Your task to perform on an android device: open a bookmark in the chrome app Image 0: 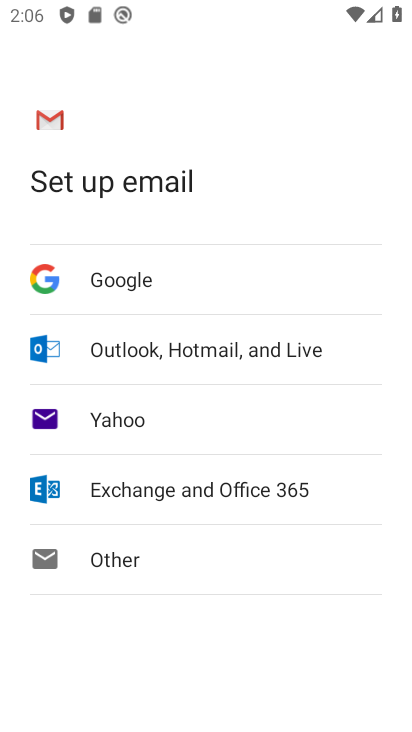
Step 0: press home button
Your task to perform on an android device: open a bookmark in the chrome app Image 1: 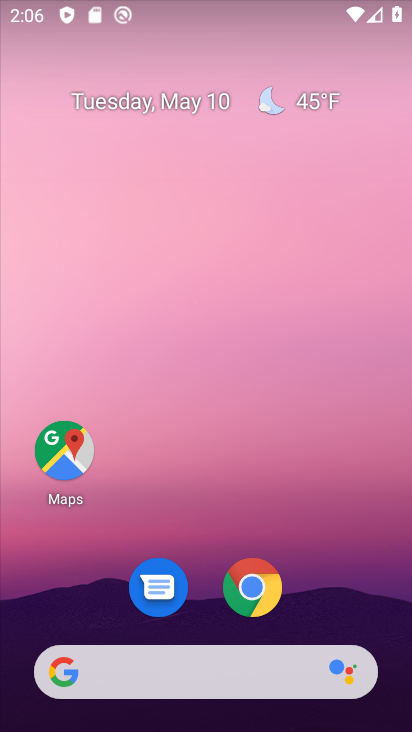
Step 1: drag from (337, 581) to (331, 125)
Your task to perform on an android device: open a bookmark in the chrome app Image 2: 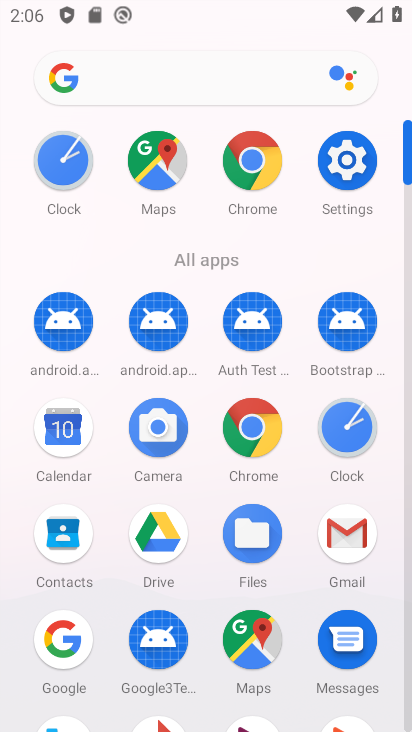
Step 2: click (257, 172)
Your task to perform on an android device: open a bookmark in the chrome app Image 3: 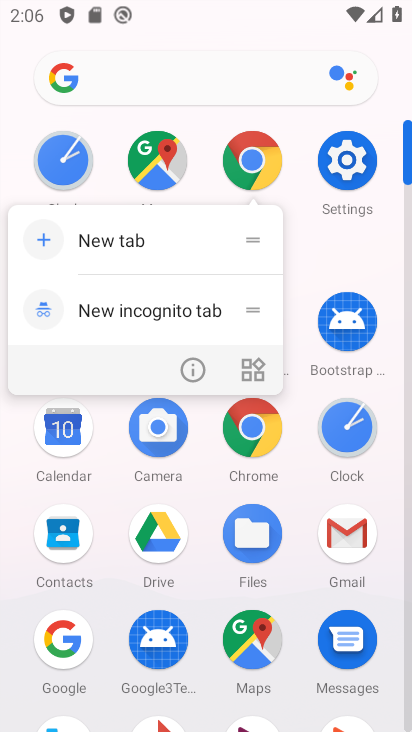
Step 3: click (257, 172)
Your task to perform on an android device: open a bookmark in the chrome app Image 4: 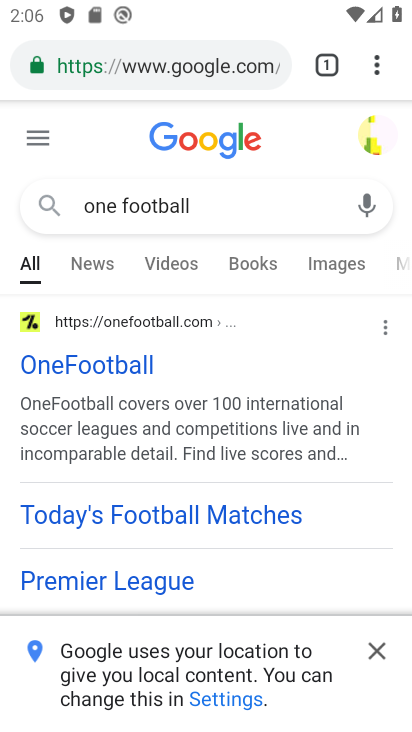
Step 4: drag from (242, 588) to (246, 288)
Your task to perform on an android device: open a bookmark in the chrome app Image 5: 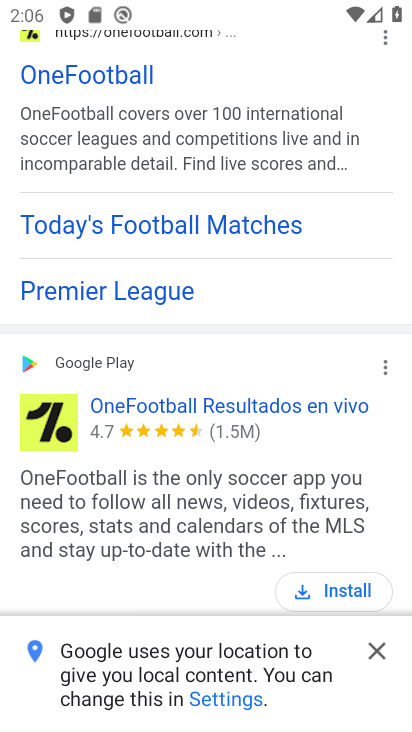
Step 5: drag from (158, 562) to (193, 301)
Your task to perform on an android device: open a bookmark in the chrome app Image 6: 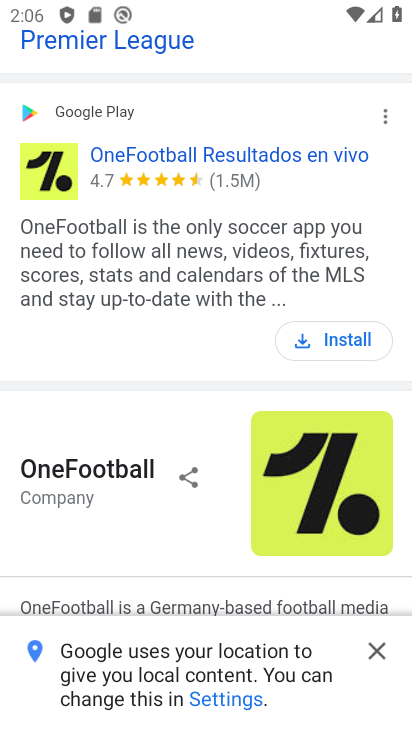
Step 6: drag from (113, 540) to (208, 269)
Your task to perform on an android device: open a bookmark in the chrome app Image 7: 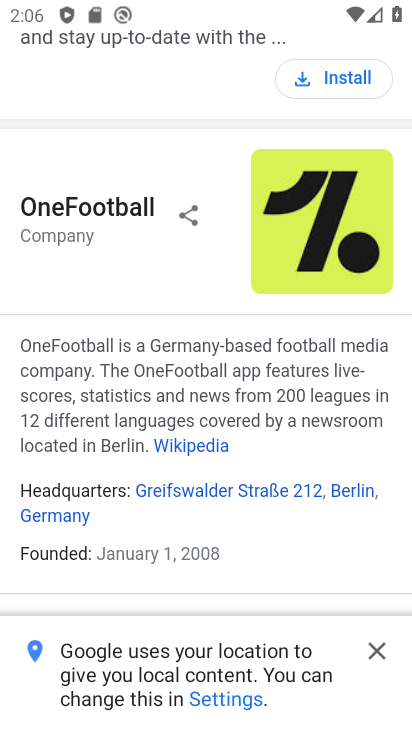
Step 7: drag from (388, 63) to (324, 569)
Your task to perform on an android device: open a bookmark in the chrome app Image 8: 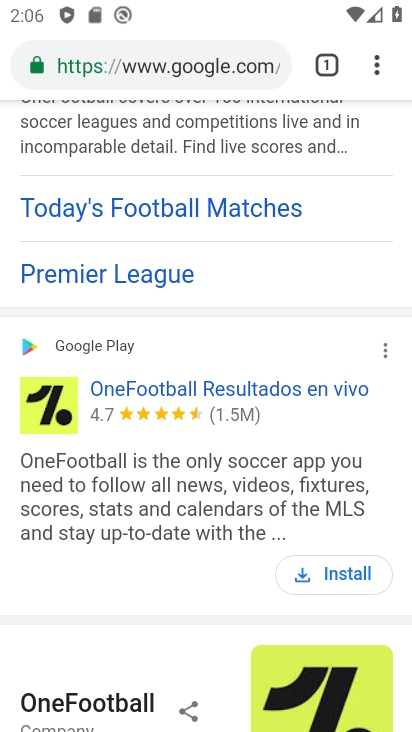
Step 8: click (375, 63)
Your task to perform on an android device: open a bookmark in the chrome app Image 9: 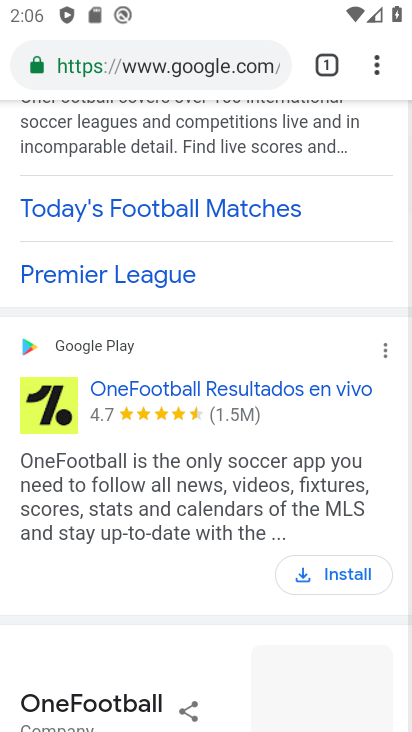
Step 9: task complete